Your task to perform on an android device: Clear the shopping cart on walmart. Search for logitech g910 on walmart, select the first entry, add it to the cart, then select checkout. Image 0: 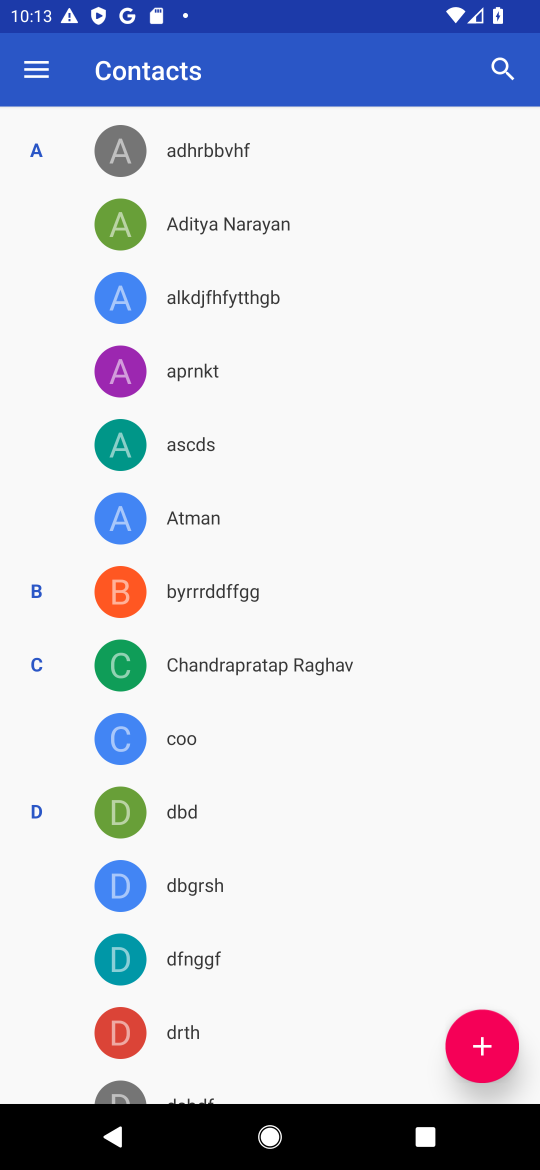
Step 0: task complete